Your task to perform on an android device: Open ESPN.com Image 0: 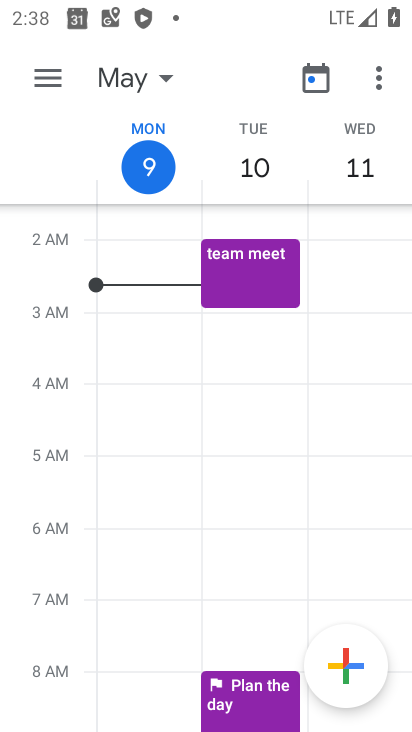
Step 0: press home button
Your task to perform on an android device: Open ESPN.com Image 1: 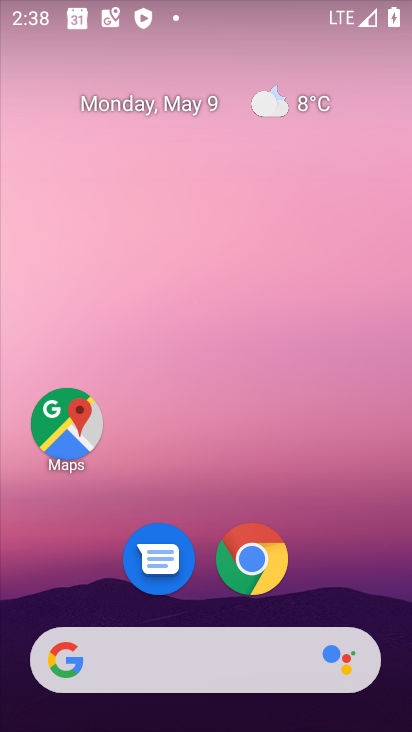
Step 1: click (246, 560)
Your task to perform on an android device: Open ESPN.com Image 2: 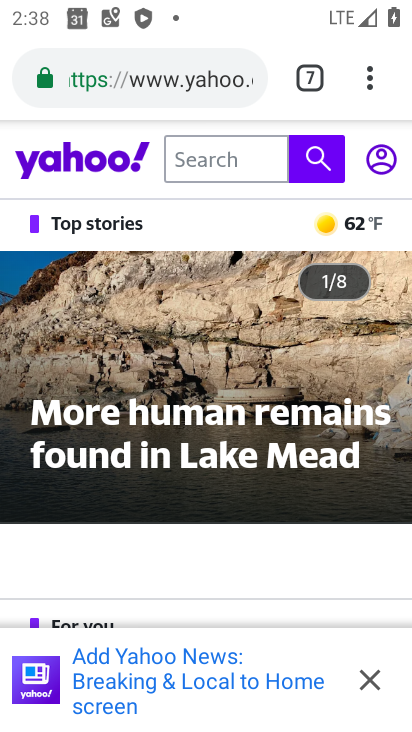
Step 2: click (367, 75)
Your task to perform on an android device: Open ESPN.com Image 3: 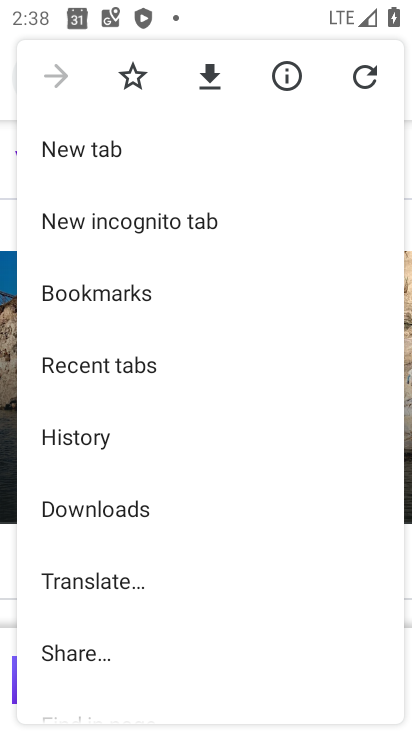
Step 3: click (100, 151)
Your task to perform on an android device: Open ESPN.com Image 4: 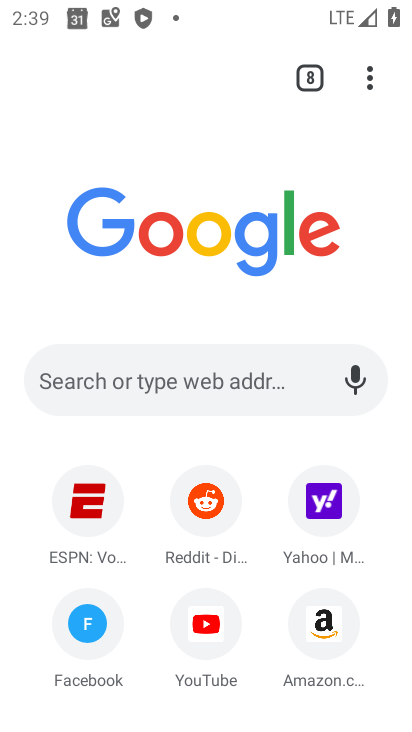
Step 4: click (200, 390)
Your task to perform on an android device: Open ESPN.com Image 5: 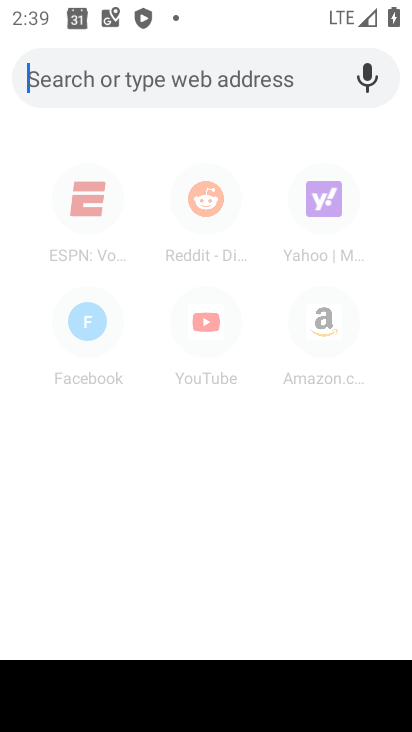
Step 5: type "espn"
Your task to perform on an android device: Open ESPN.com Image 6: 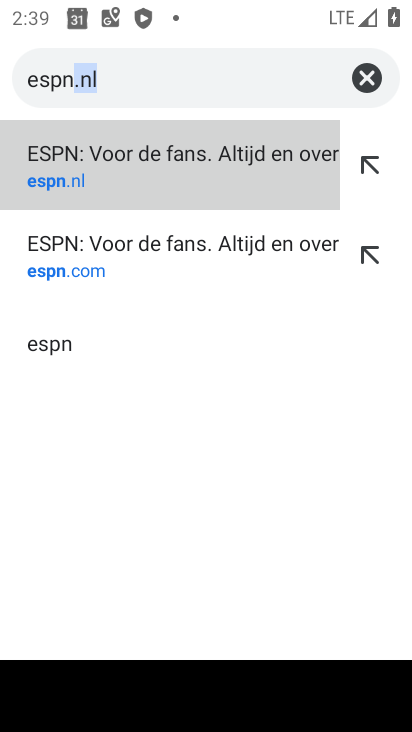
Step 6: click (108, 158)
Your task to perform on an android device: Open ESPN.com Image 7: 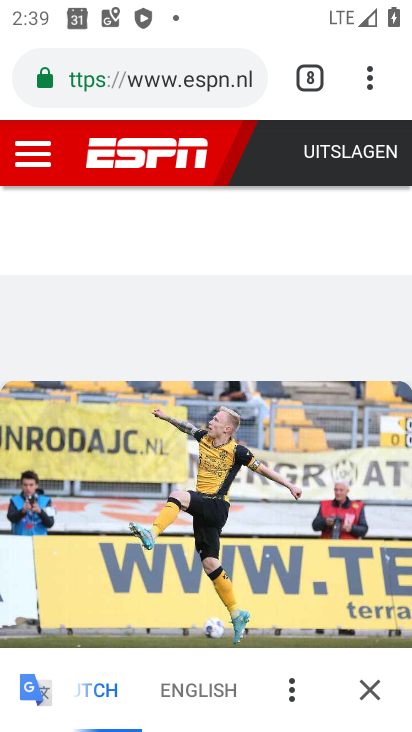
Step 7: task complete